Your task to perform on an android device: set an alarm Image 0: 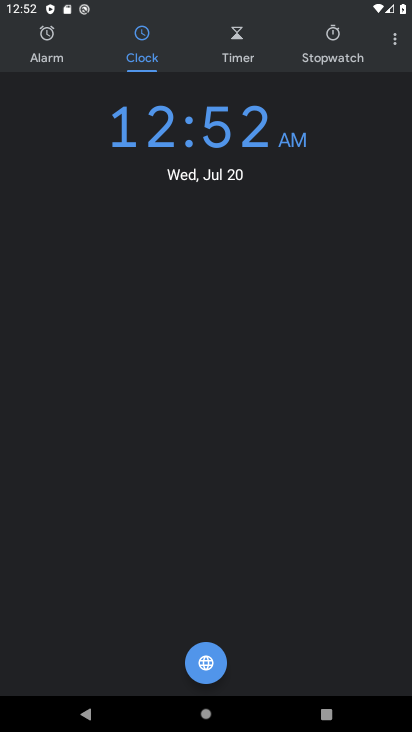
Step 0: click (36, 56)
Your task to perform on an android device: set an alarm Image 1: 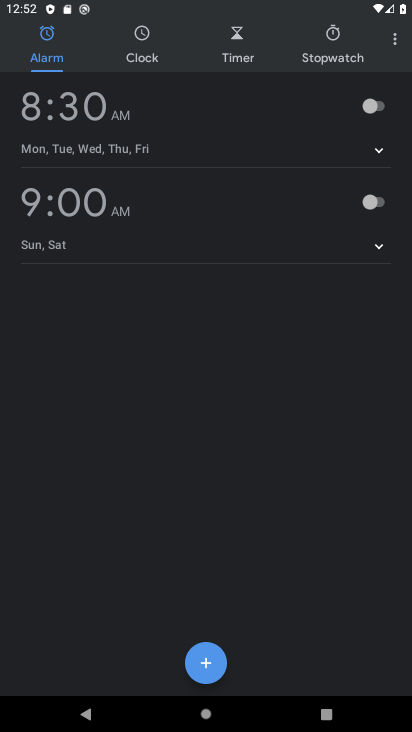
Step 1: click (213, 660)
Your task to perform on an android device: set an alarm Image 2: 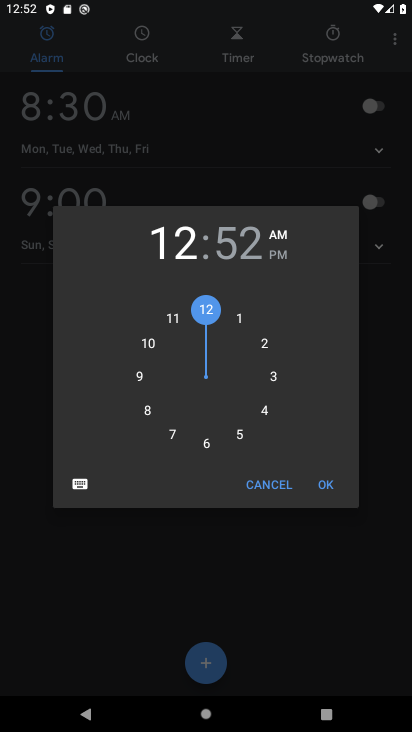
Step 2: click (334, 481)
Your task to perform on an android device: set an alarm Image 3: 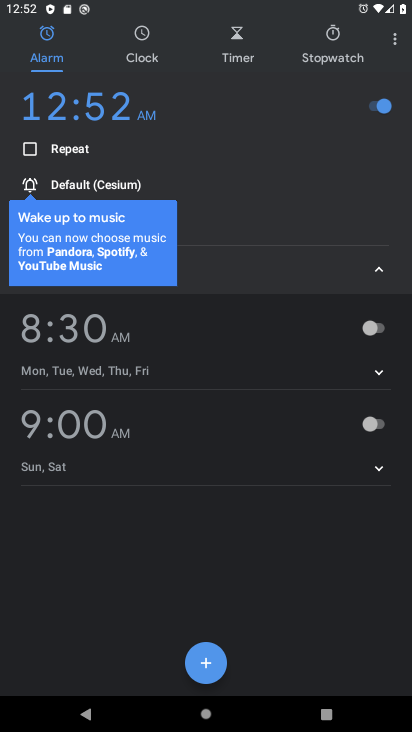
Step 3: task complete